Your task to perform on an android device: Open the calendar app, open the side menu, and click the "Day" option Image 0: 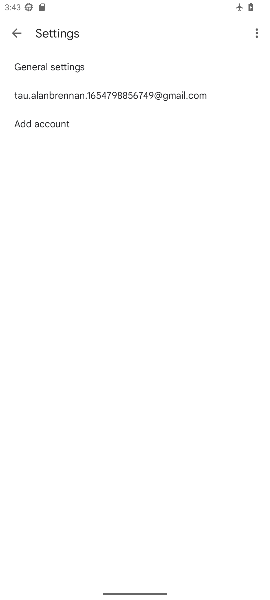
Step 0: press home button
Your task to perform on an android device: Open the calendar app, open the side menu, and click the "Day" option Image 1: 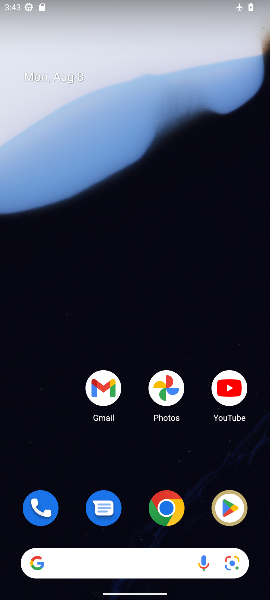
Step 1: drag from (131, 452) to (160, 50)
Your task to perform on an android device: Open the calendar app, open the side menu, and click the "Day" option Image 2: 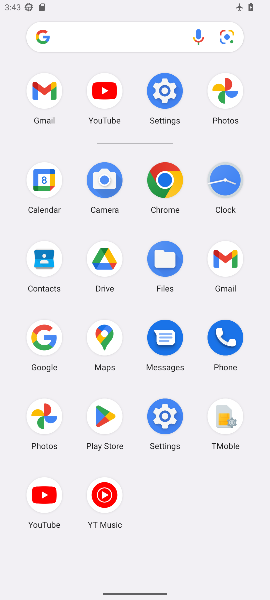
Step 2: click (42, 182)
Your task to perform on an android device: Open the calendar app, open the side menu, and click the "Day" option Image 3: 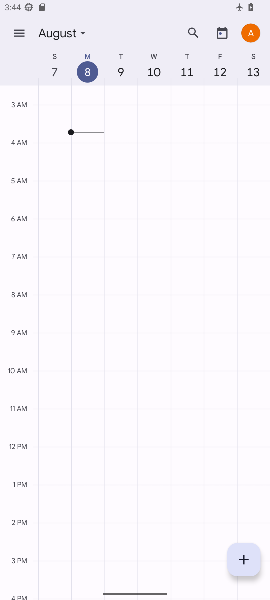
Step 3: click (17, 30)
Your task to perform on an android device: Open the calendar app, open the side menu, and click the "Day" option Image 4: 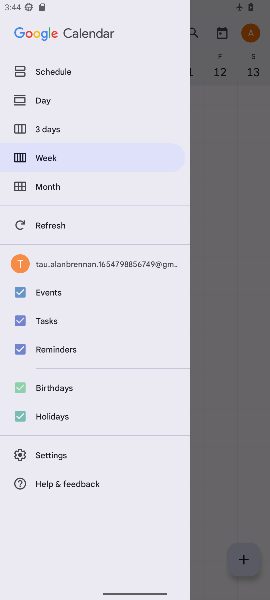
Step 4: click (43, 95)
Your task to perform on an android device: Open the calendar app, open the side menu, and click the "Day" option Image 5: 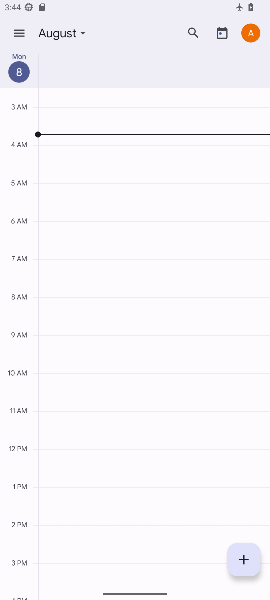
Step 5: task complete